Your task to perform on an android device: turn notification dots off Image 0: 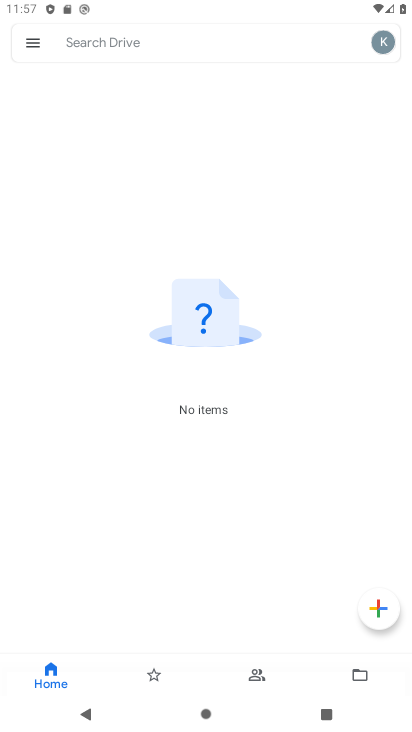
Step 0: task complete